Your task to perform on an android device: When is my next meeting? Image 0: 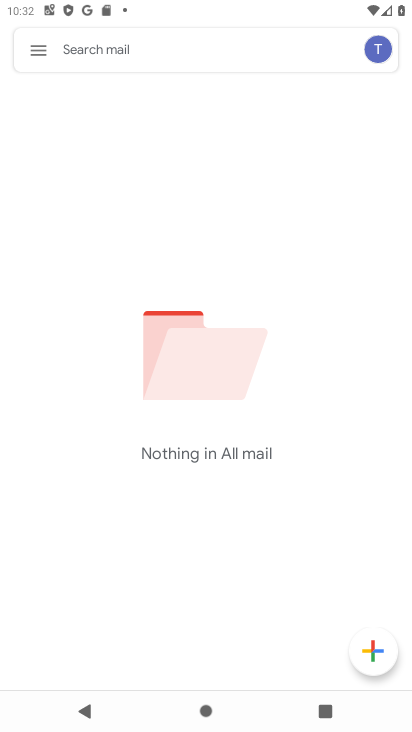
Step 0: press home button
Your task to perform on an android device: When is my next meeting? Image 1: 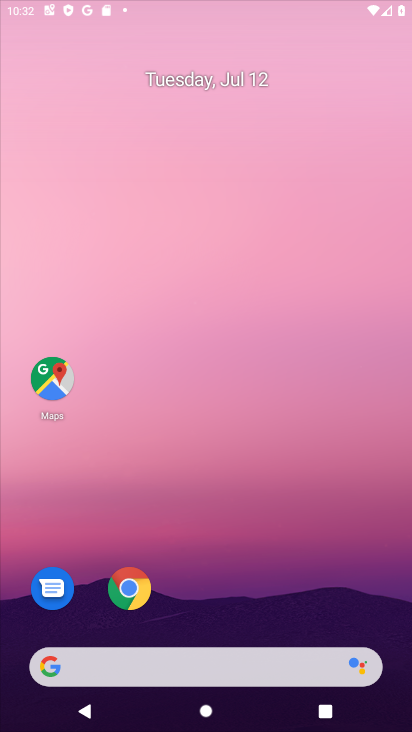
Step 1: drag from (239, 561) to (250, 55)
Your task to perform on an android device: When is my next meeting? Image 2: 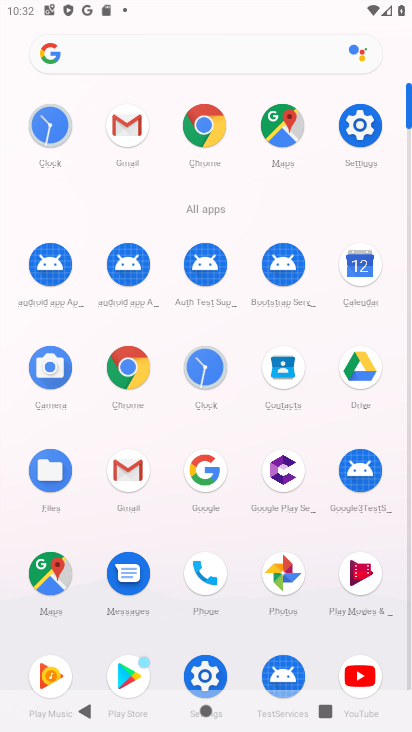
Step 2: click (351, 272)
Your task to perform on an android device: When is my next meeting? Image 3: 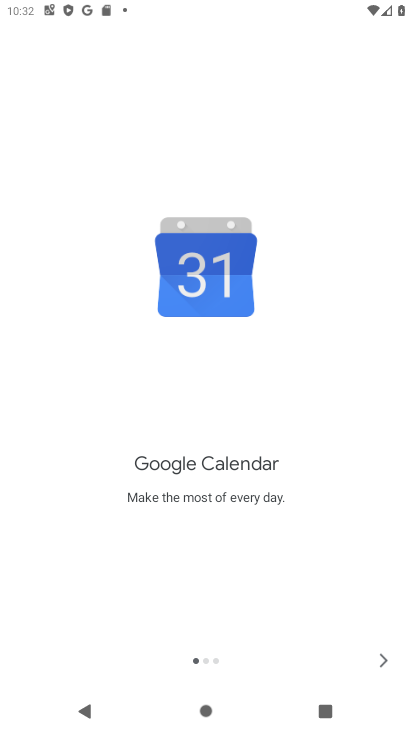
Step 3: click (374, 650)
Your task to perform on an android device: When is my next meeting? Image 4: 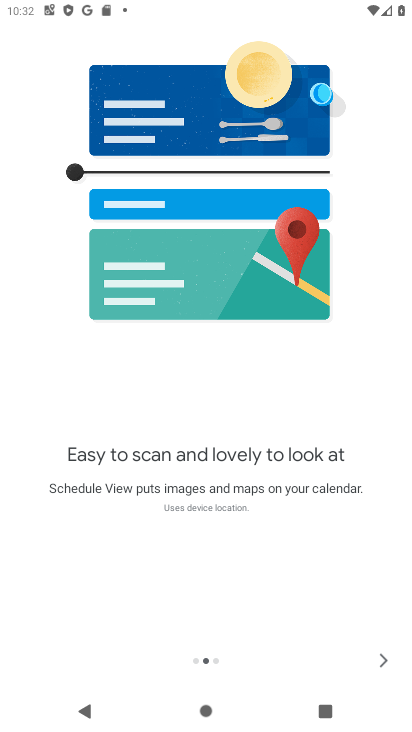
Step 4: click (374, 650)
Your task to perform on an android device: When is my next meeting? Image 5: 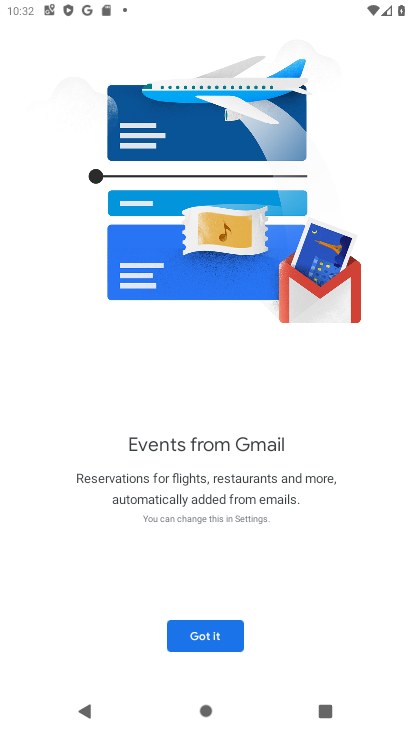
Step 5: click (237, 640)
Your task to perform on an android device: When is my next meeting? Image 6: 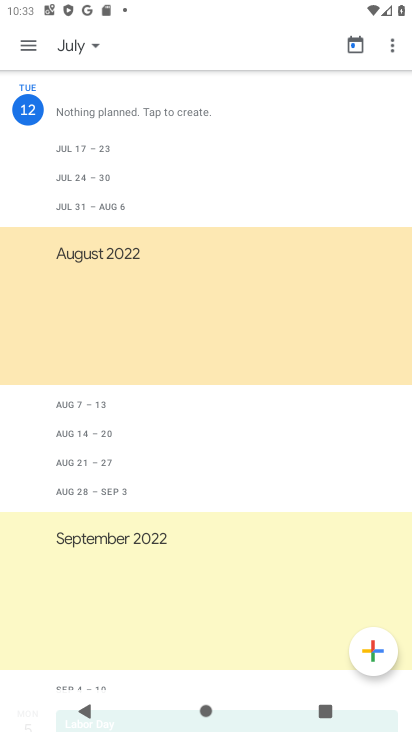
Step 6: task complete